Your task to perform on an android device: Search for Italian restaurants on Maps Image 0: 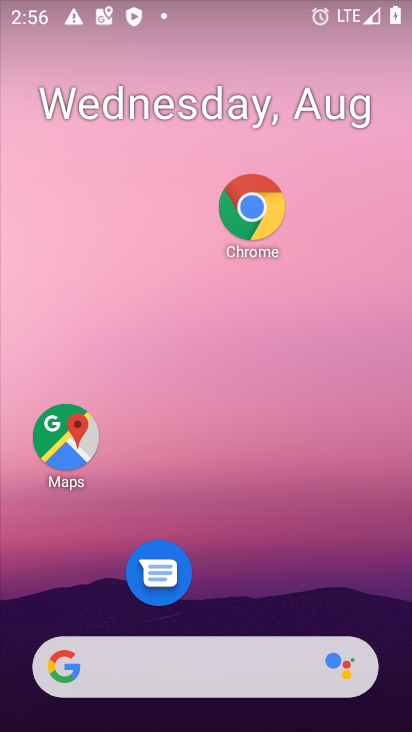
Step 0: drag from (208, 664) to (224, 175)
Your task to perform on an android device: Search for Italian restaurants on Maps Image 1: 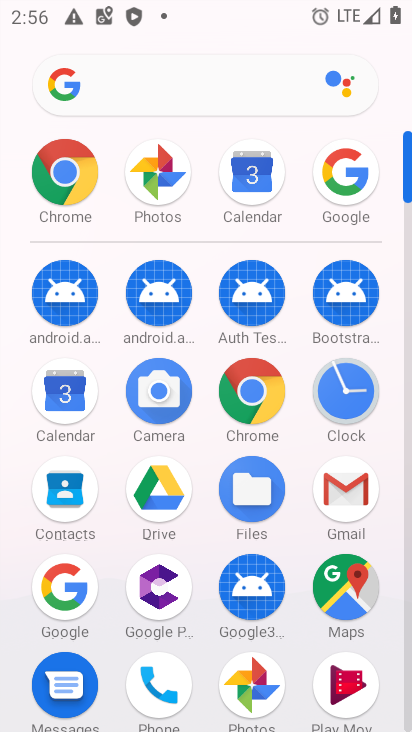
Step 1: click (356, 585)
Your task to perform on an android device: Search for Italian restaurants on Maps Image 2: 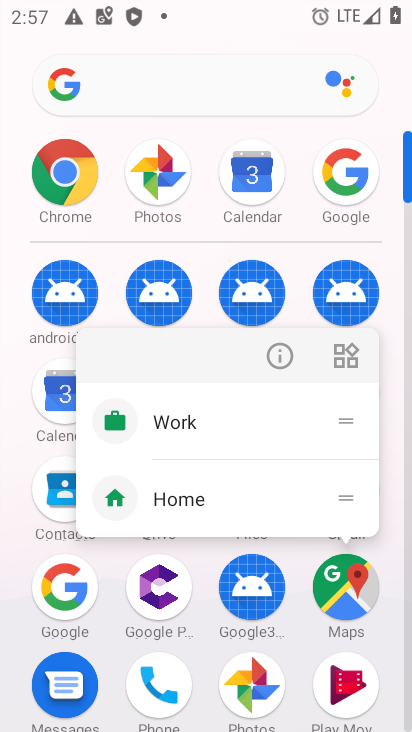
Step 2: click (13, 100)
Your task to perform on an android device: Search for Italian restaurants on Maps Image 3: 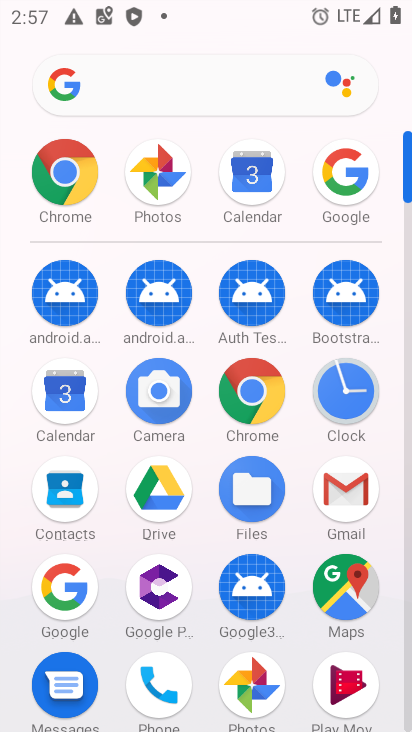
Step 3: click (363, 612)
Your task to perform on an android device: Search for Italian restaurants on Maps Image 4: 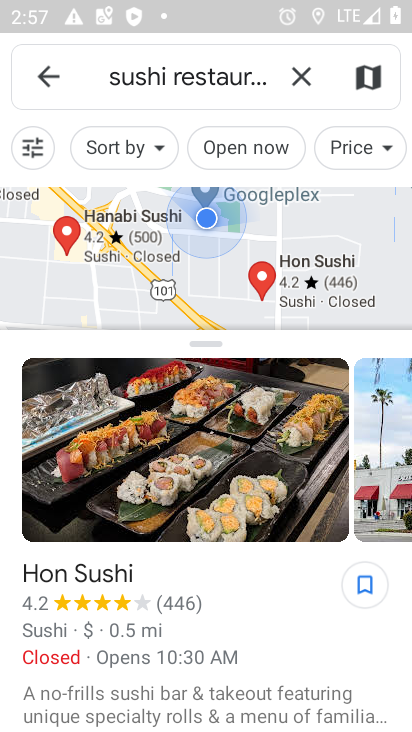
Step 4: click (307, 79)
Your task to perform on an android device: Search for Italian restaurants on Maps Image 5: 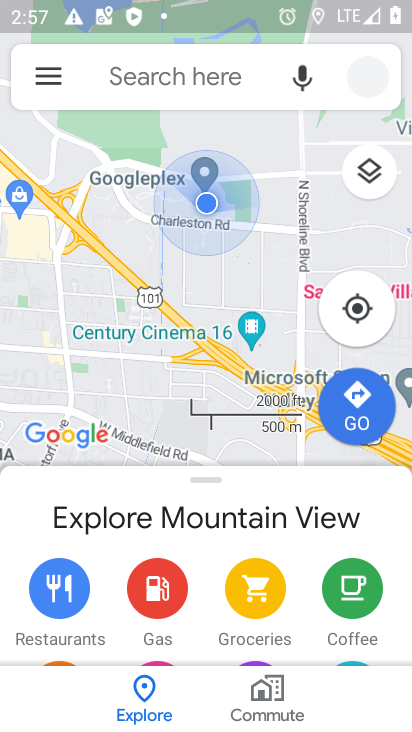
Step 5: click (155, 86)
Your task to perform on an android device: Search for Italian restaurants on Maps Image 6: 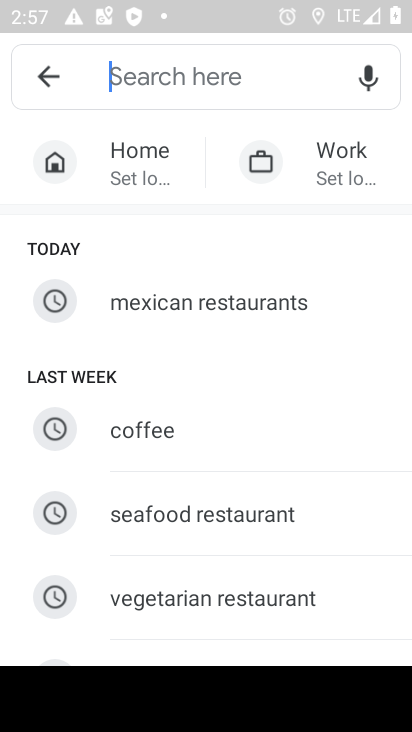
Step 6: drag from (248, 564) to (293, 247)
Your task to perform on an android device: Search for Italian restaurants on Maps Image 7: 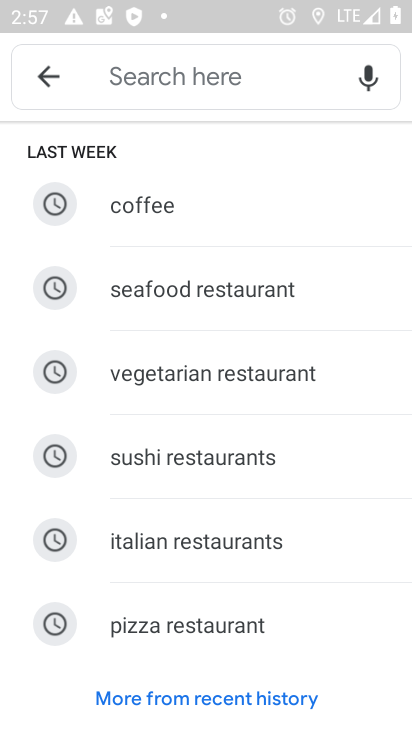
Step 7: click (213, 547)
Your task to perform on an android device: Search for Italian restaurants on Maps Image 8: 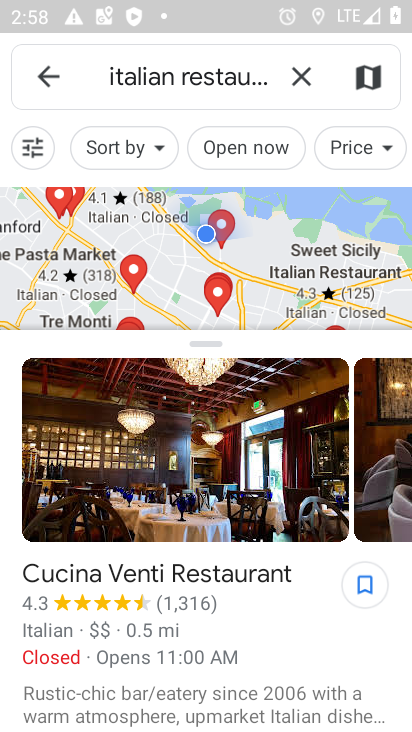
Step 8: task complete